Your task to perform on an android device: Go to Android settings Image 0: 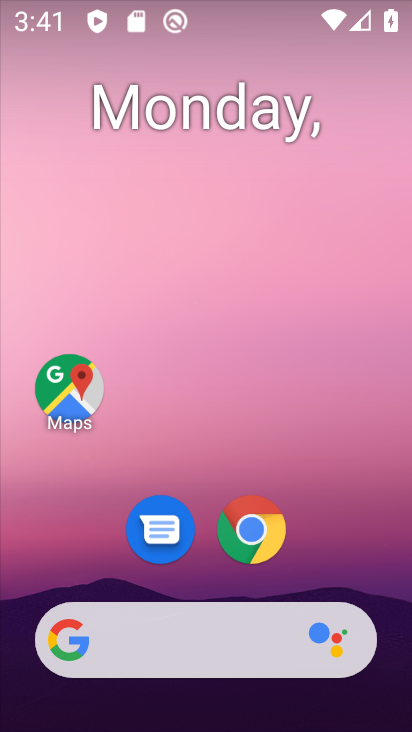
Step 0: drag from (235, 586) to (286, 0)
Your task to perform on an android device: Go to Android settings Image 1: 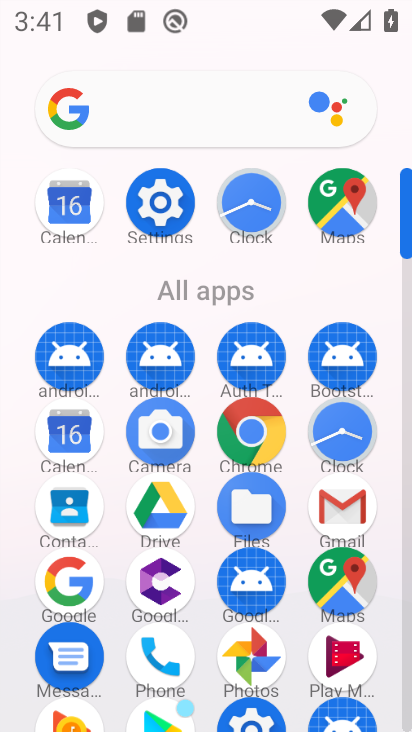
Step 1: click (169, 212)
Your task to perform on an android device: Go to Android settings Image 2: 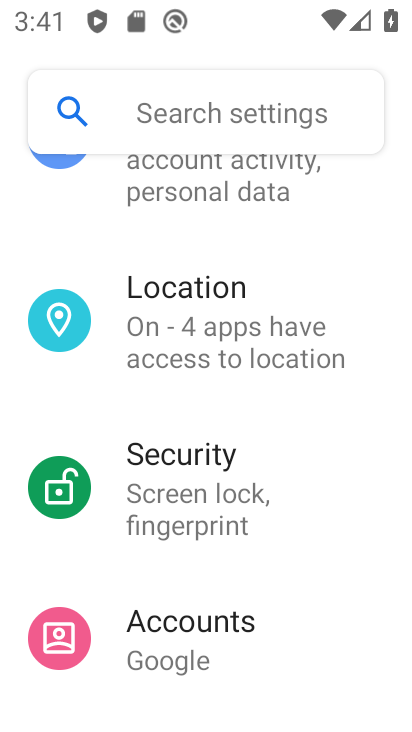
Step 2: drag from (281, 320) to (301, 14)
Your task to perform on an android device: Go to Android settings Image 3: 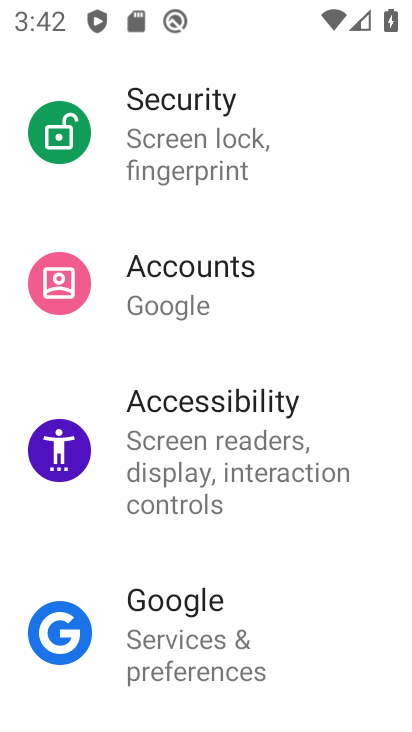
Step 3: drag from (210, 556) to (288, 21)
Your task to perform on an android device: Go to Android settings Image 4: 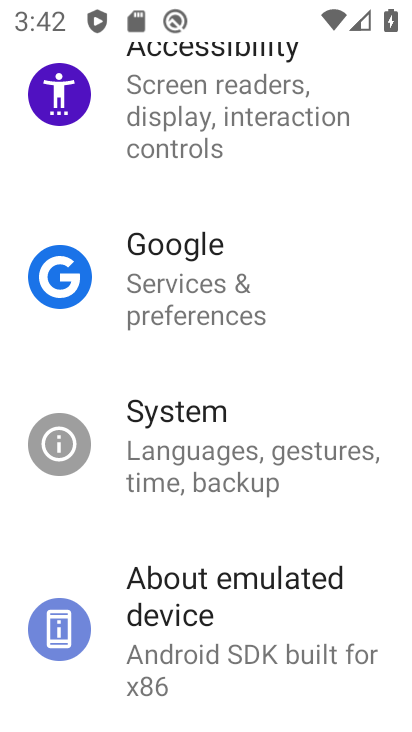
Step 4: drag from (213, 604) to (280, 141)
Your task to perform on an android device: Go to Android settings Image 5: 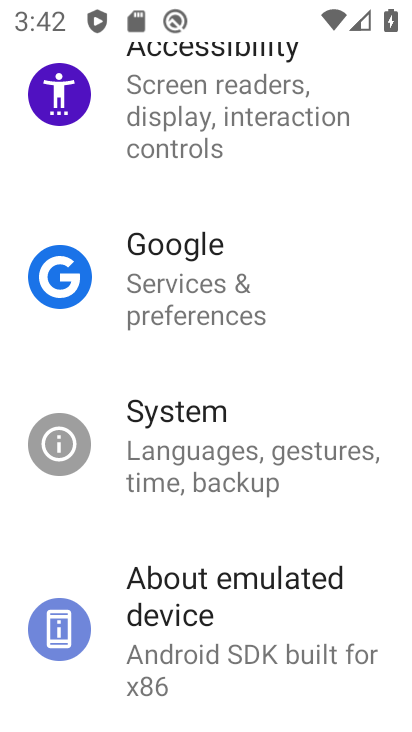
Step 5: drag from (193, 545) to (270, 125)
Your task to perform on an android device: Go to Android settings Image 6: 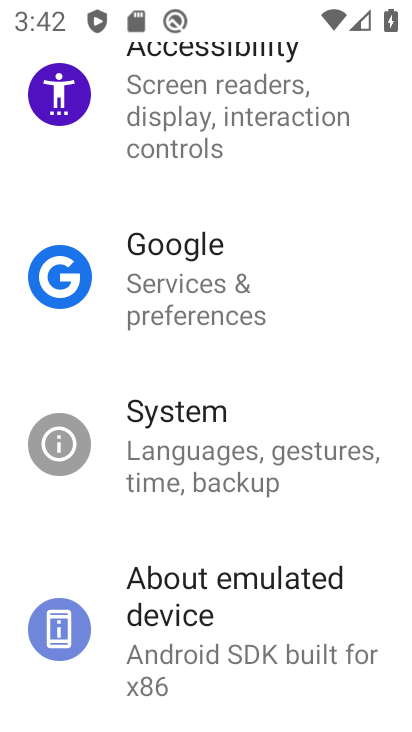
Step 6: drag from (204, 605) to (260, 289)
Your task to perform on an android device: Go to Android settings Image 7: 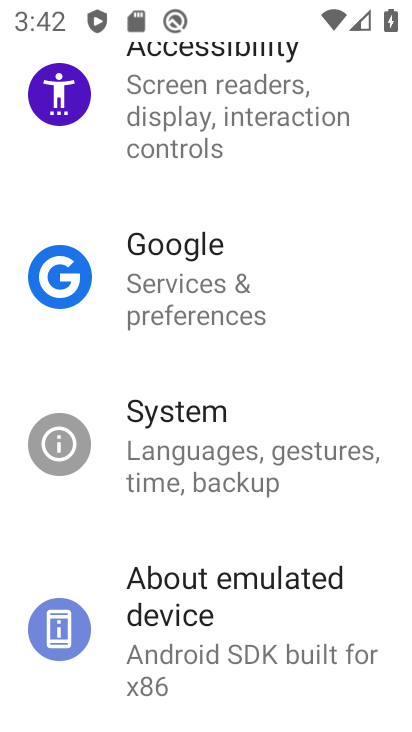
Step 7: click (204, 622)
Your task to perform on an android device: Go to Android settings Image 8: 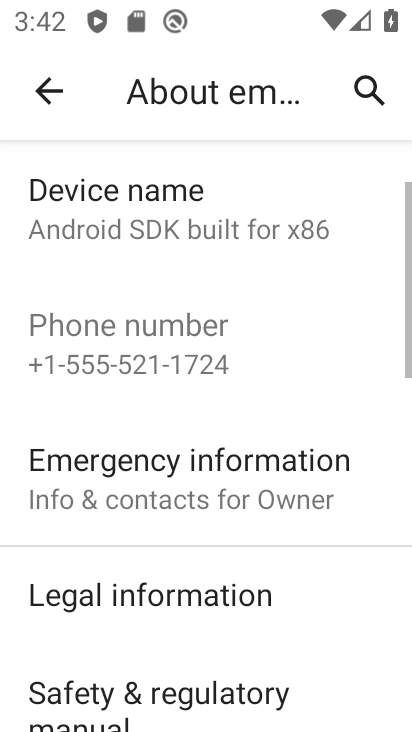
Step 8: drag from (130, 474) to (210, 218)
Your task to perform on an android device: Go to Android settings Image 9: 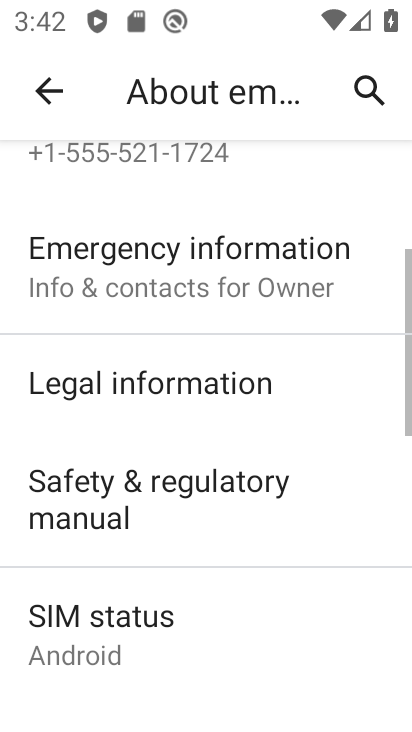
Step 9: drag from (176, 628) to (230, 221)
Your task to perform on an android device: Go to Android settings Image 10: 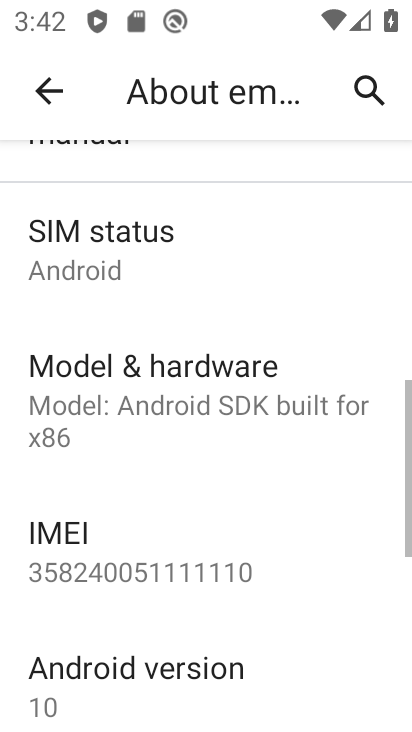
Step 10: click (179, 685)
Your task to perform on an android device: Go to Android settings Image 11: 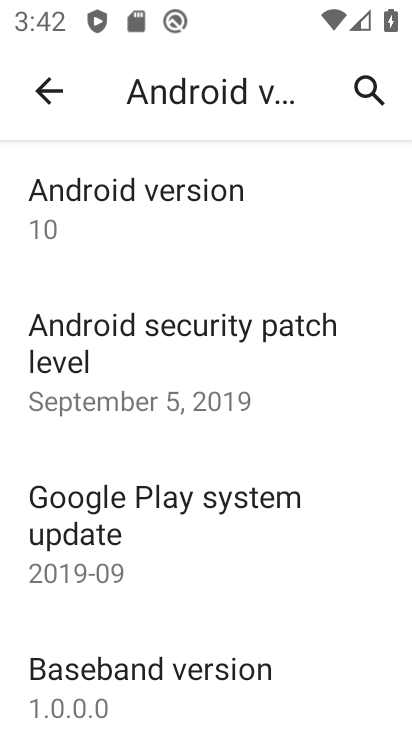
Step 11: task complete